Your task to perform on an android device: set the stopwatch Image 0: 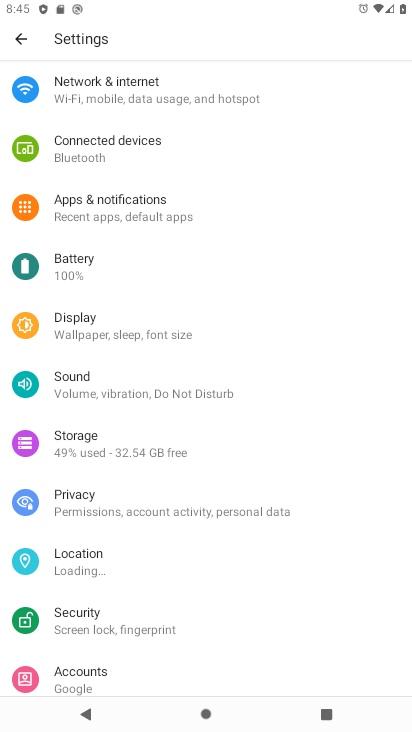
Step 0: press home button
Your task to perform on an android device: set the stopwatch Image 1: 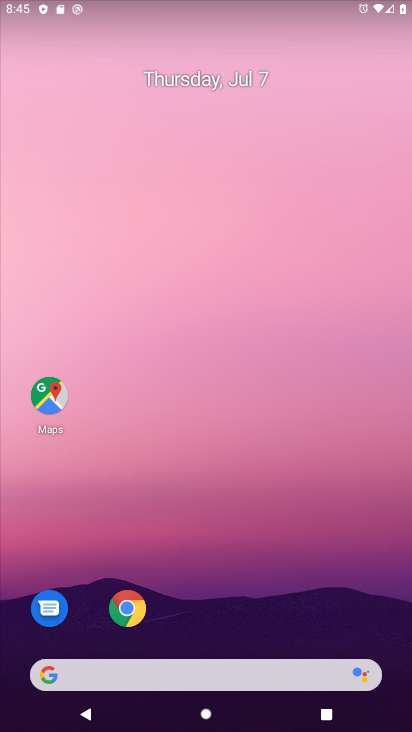
Step 1: drag from (144, 662) to (124, 453)
Your task to perform on an android device: set the stopwatch Image 2: 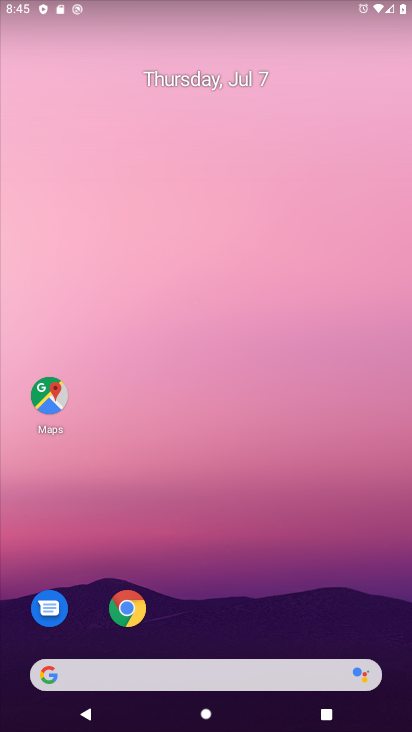
Step 2: drag from (228, 643) to (215, 471)
Your task to perform on an android device: set the stopwatch Image 3: 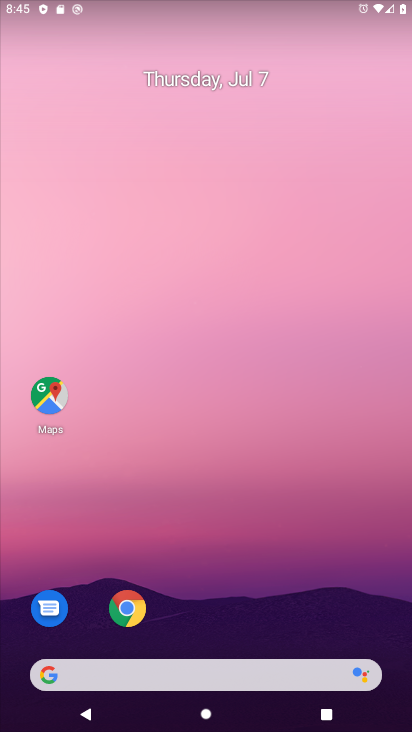
Step 3: drag from (165, 652) to (170, 264)
Your task to perform on an android device: set the stopwatch Image 4: 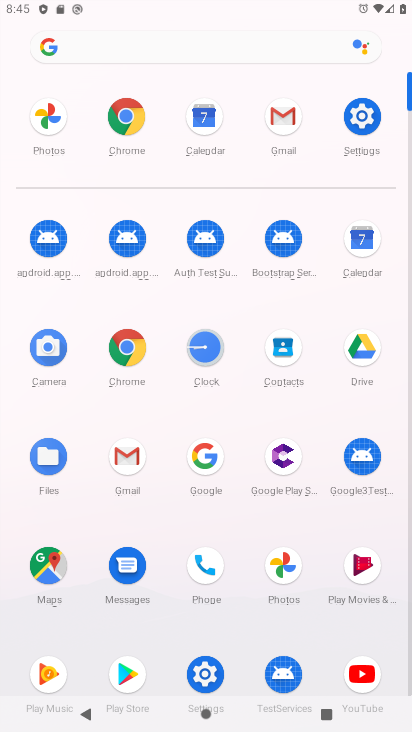
Step 4: click (206, 357)
Your task to perform on an android device: set the stopwatch Image 5: 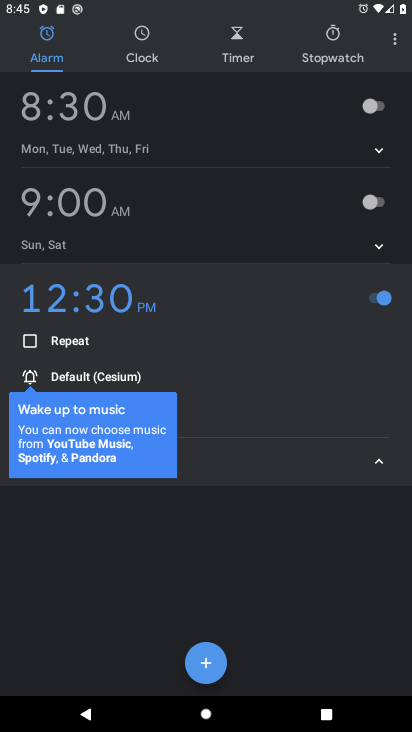
Step 5: click (324, 48)
Your task to perform on an android device: set the stopwatch Image 6: 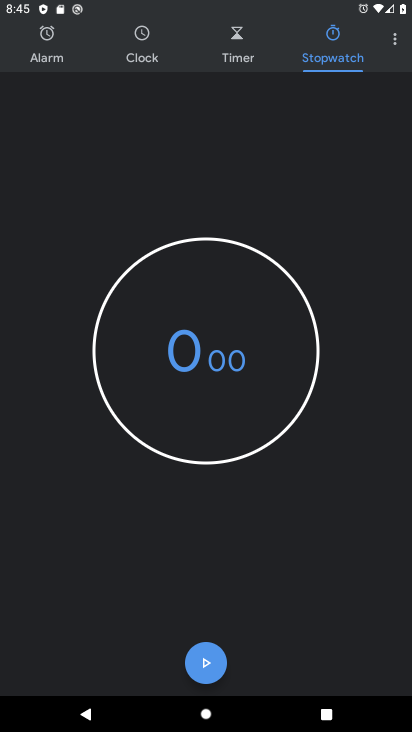
Step 6: click (210, 654)
Your task to perform on an android device: set the stopwatch Image 7: 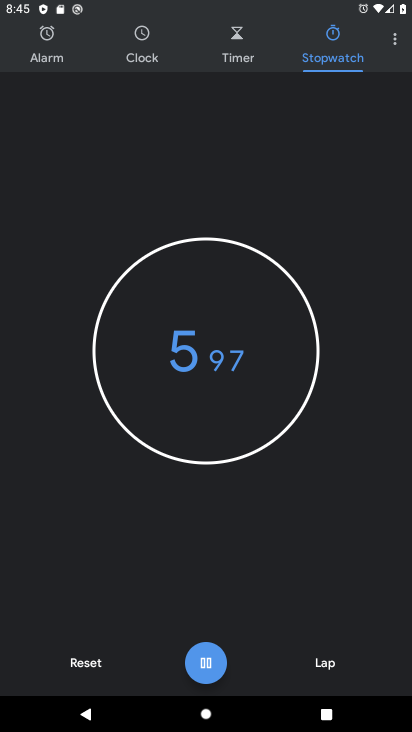
Step 7: click (214, 659)
Your task to perform on an android device: set the stopwatch Image 8: 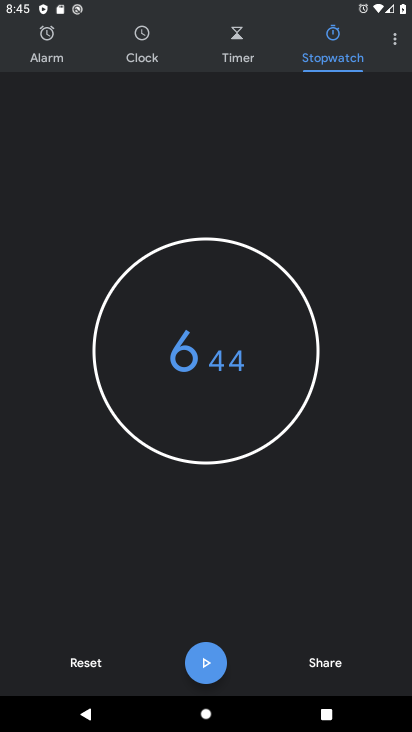
Step 8: task complete